Your task to perform on an android device: What time is it in Tokyo? Image 0: 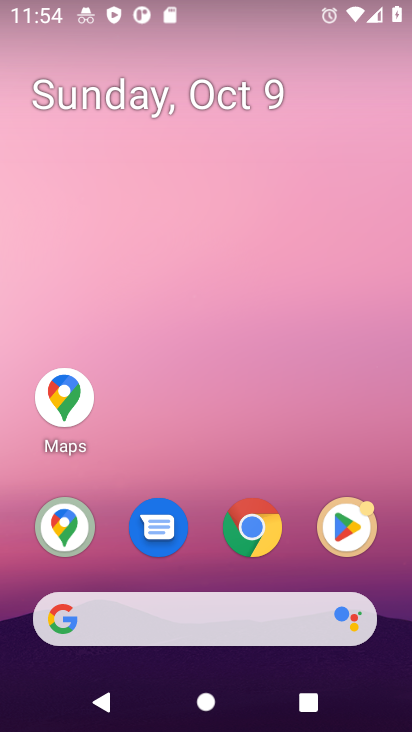
Step 0: click (278, 535)
Your task to perform on an android device: What time is it in Tokyo? Image 1: 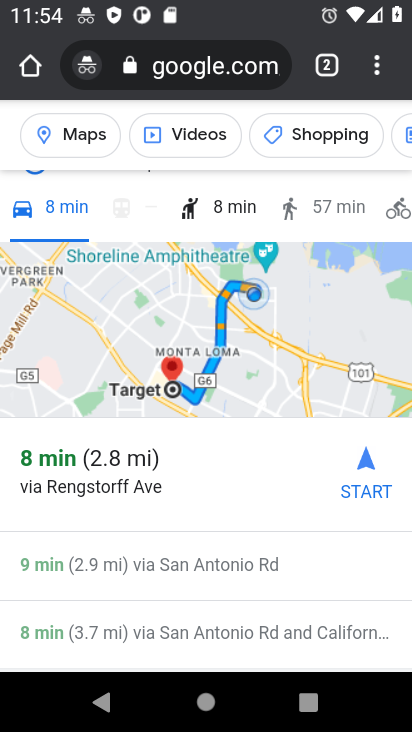
Step 1: click (224, 78)
Your task to perform on an android device: What time is it in Tokyo? Image 2: 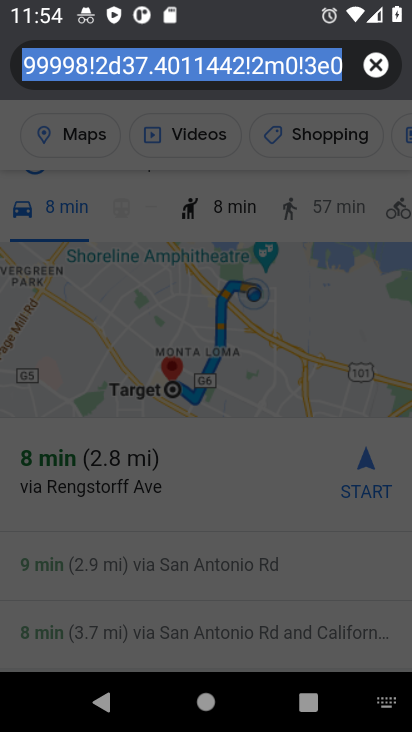
Step 2: click (371, 65)
Your task to perform on an android device: What time is it in Tokyo? Image 3: 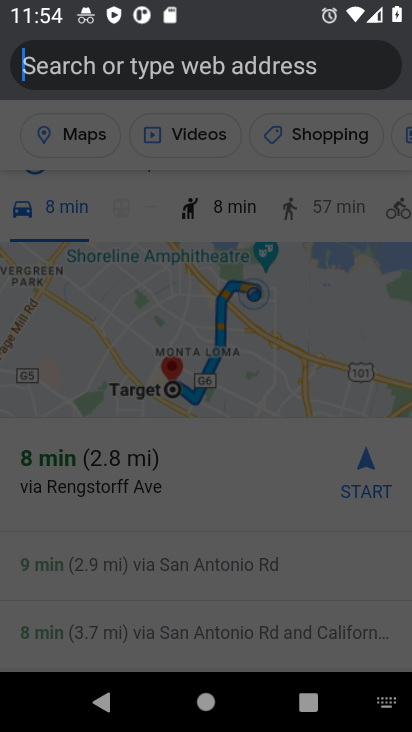
Step 3: type "time in tokyo"
Your task to perform on an android device: What time is it in Tokyo? Image 4: 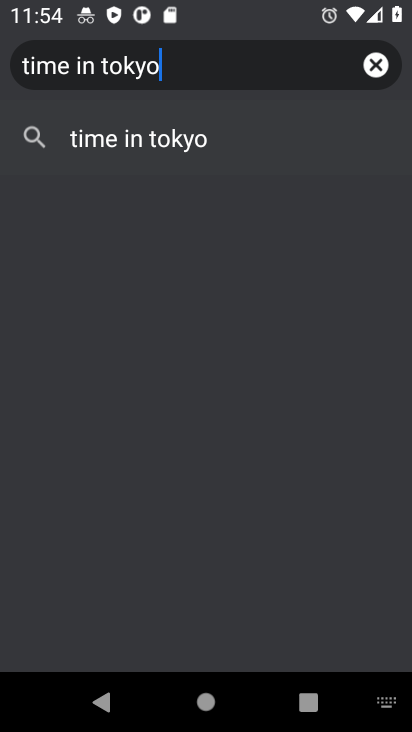
Step 4: click (142, 138)
Your task to perform on an android device: What time is it in Tokyo? Image 5: 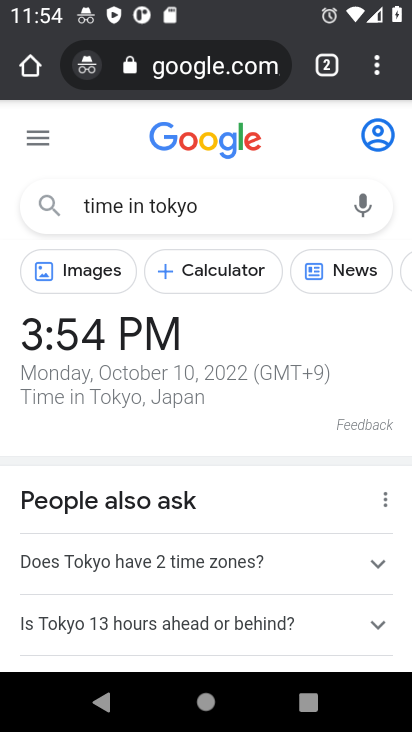
Step 5: task complete